Your task to perform on an android device: move an email to a new category in the gmail app Image 0: 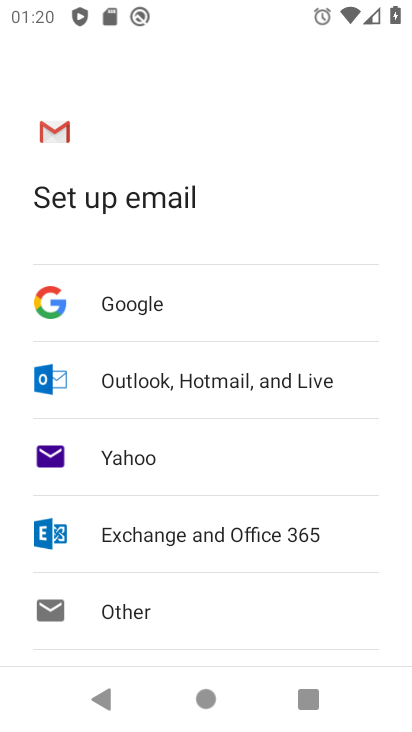
Step 0: press home button
Your task to perform on an android device: move an email to a new category in the gmail app Image 1: 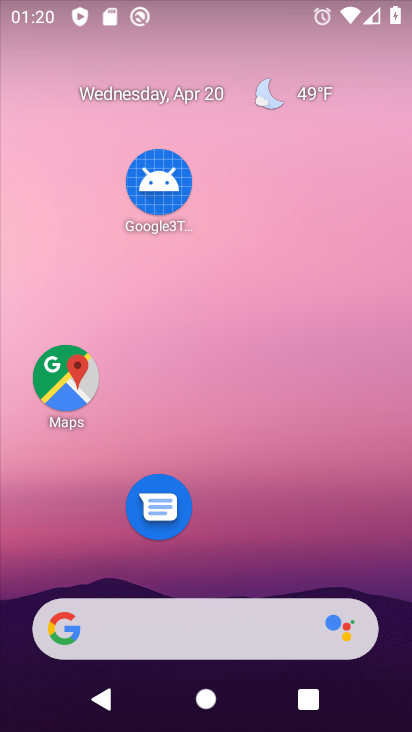
Step 1: drag from (259, 562) to (198, 6)
Your task to perform on an android device: move an email to a new category in the gmail app Image 2: 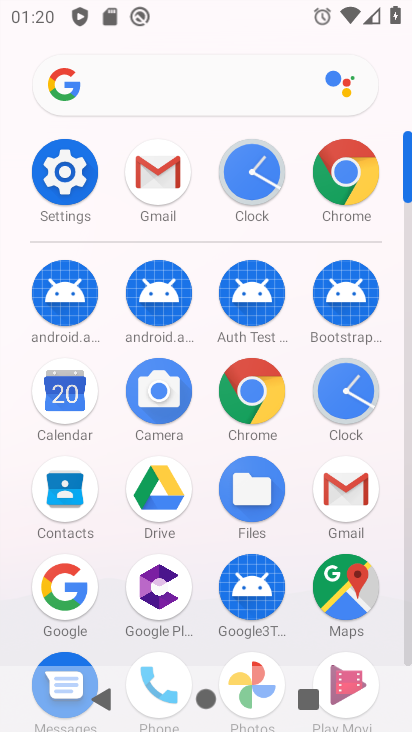
Step 2: click (347, 489)
Your task to perform on an android device: move an email to a new category in the gmail app Image 3: 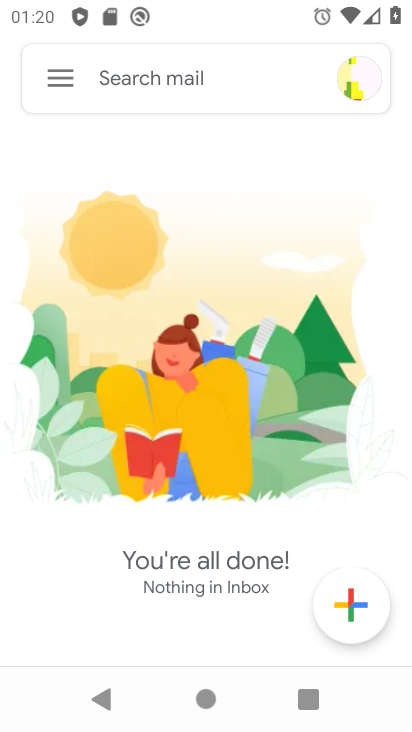
Step 3: click (55, 71)
Your task to perform on an android device: move an email to a new category in the gmail app Image 4: 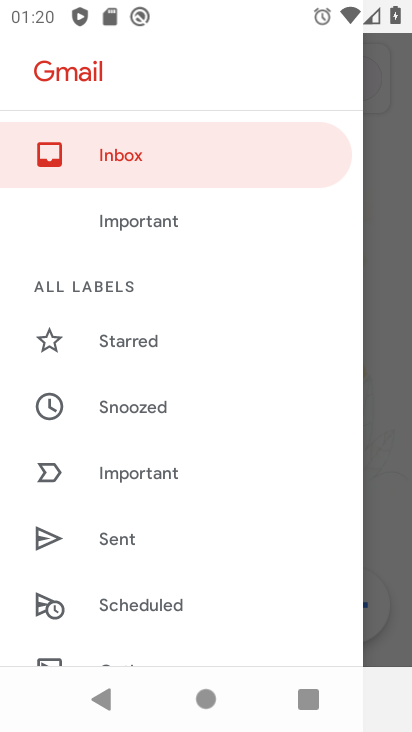
Step 4: drag from (140, 532) to (173, 203)
Your task to perform on an android device: move an email to a new category in the gmail app Image 5: 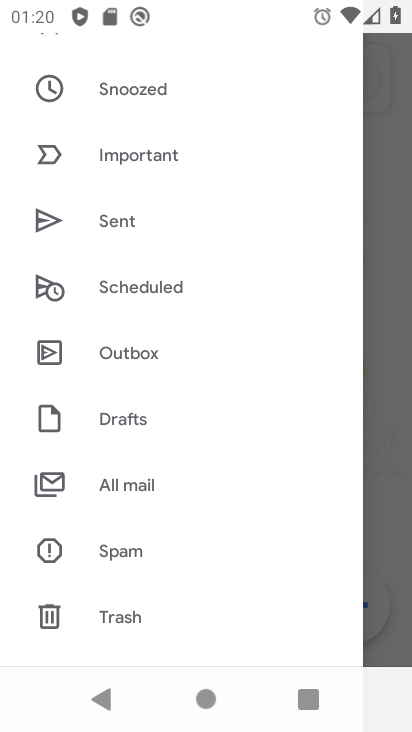
Step 5: drag from (148, 562) to (142, 323)
Your task to perform on an android device: move an email to a new category in the gmail app Image 6: 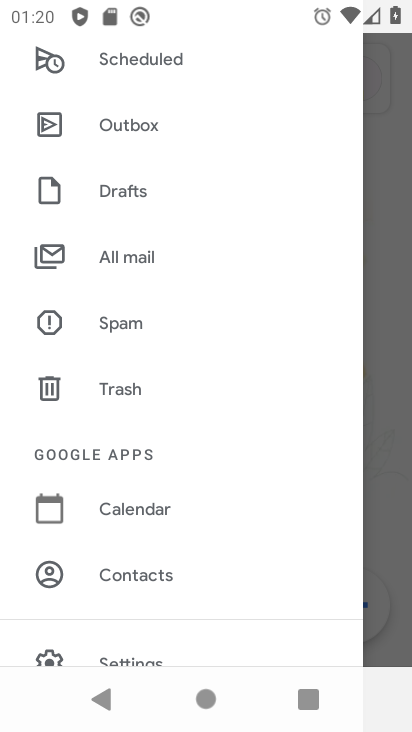
Step 6: click (116, 256)
Your task to perform on an android device: move an email to a new category in the gmail app Image 7: 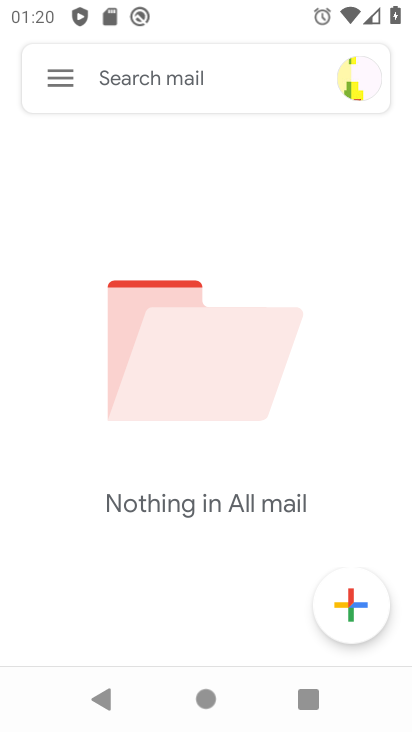
Step 7: task complete